Your task to perform on an android device: What's the weather like in Delhi? Image 0: 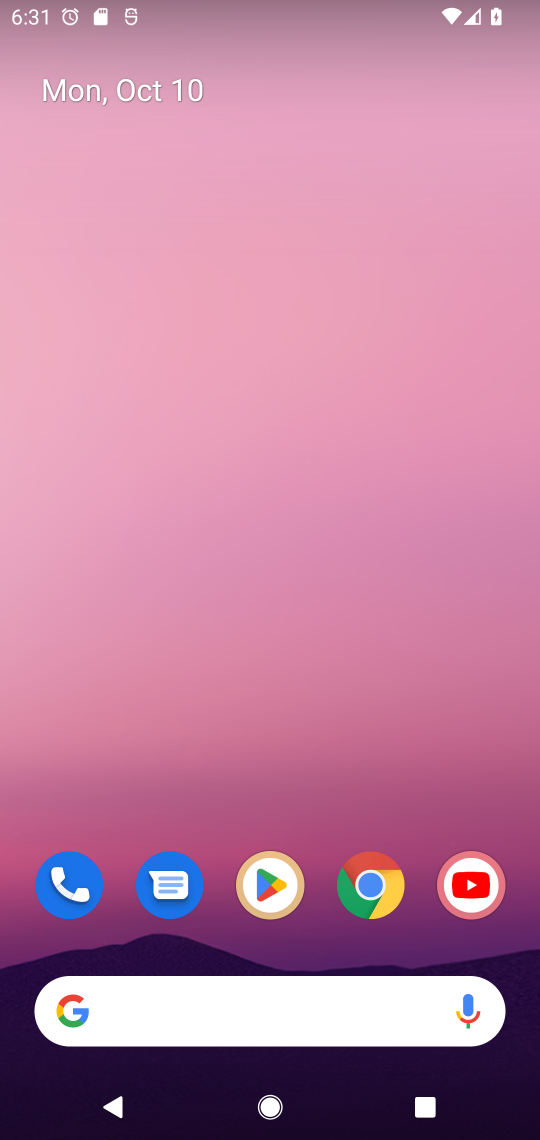
Step 0: click (380, 875)
Your task to perform on an android device: What's the weather like in Delhi? Image 1: 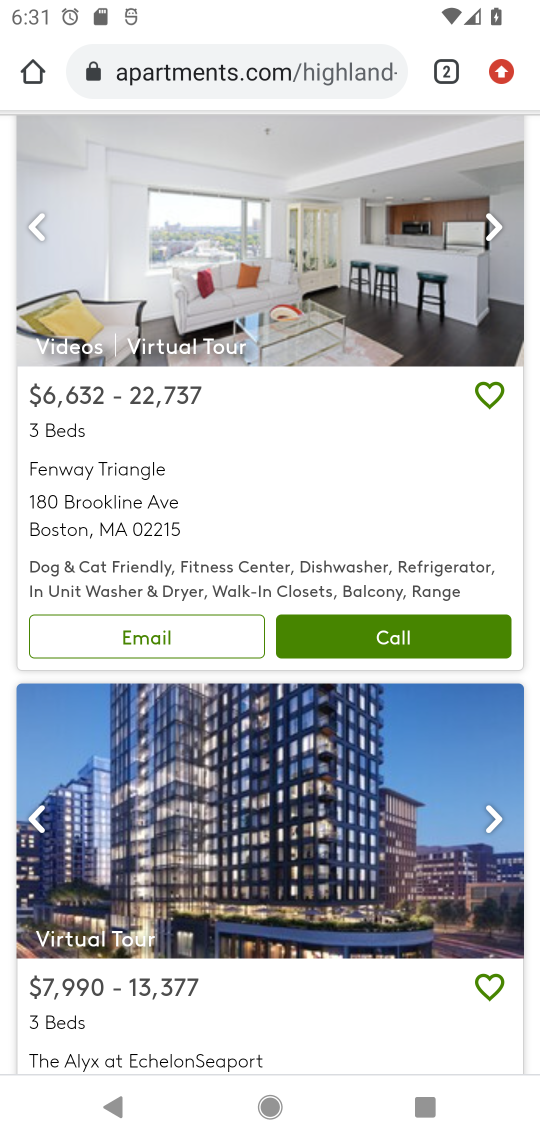
Step 1: click (282, 59)
Your task to perform on an android device: What's the weather like in Delhi? Image 2: 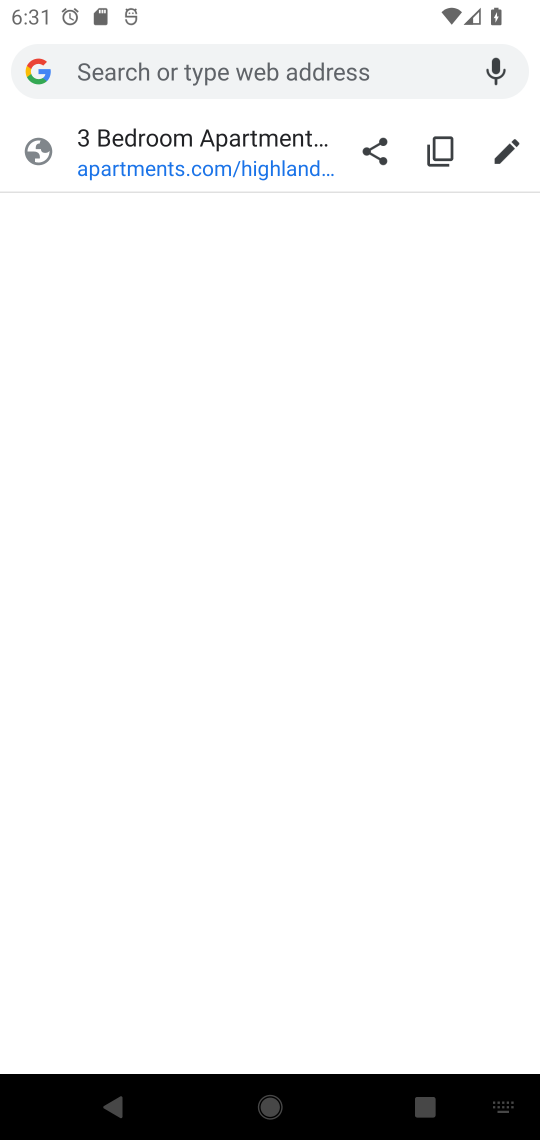
Step 2: type "weather like in Delhi"
Your task to perform on an android device: What's the weather like in Delhi? Image 3: 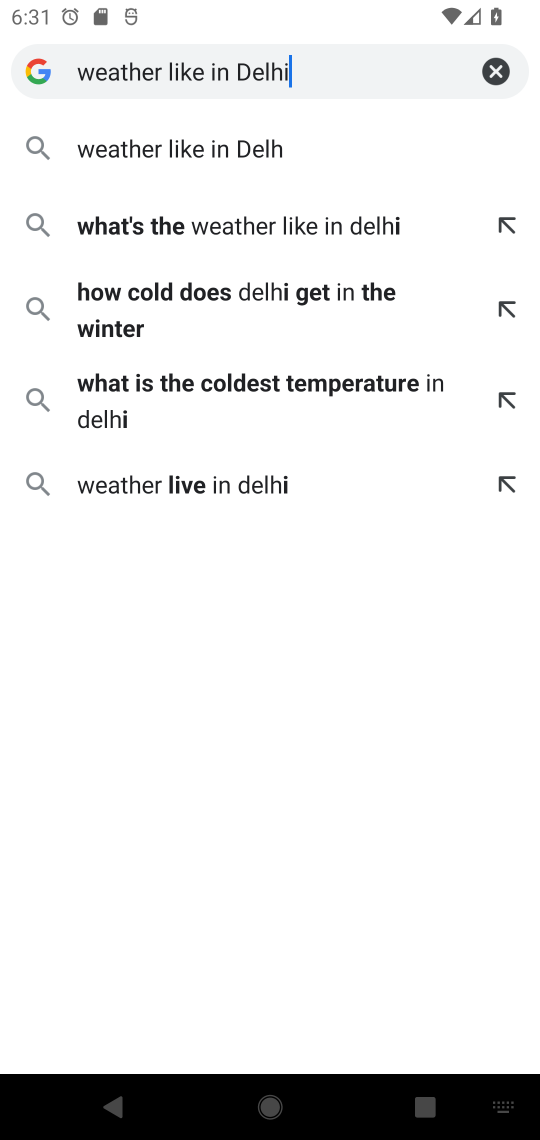
Step 3: type ""
Your task to perform on an android device: What's the weather like in Delhi? Image 4: 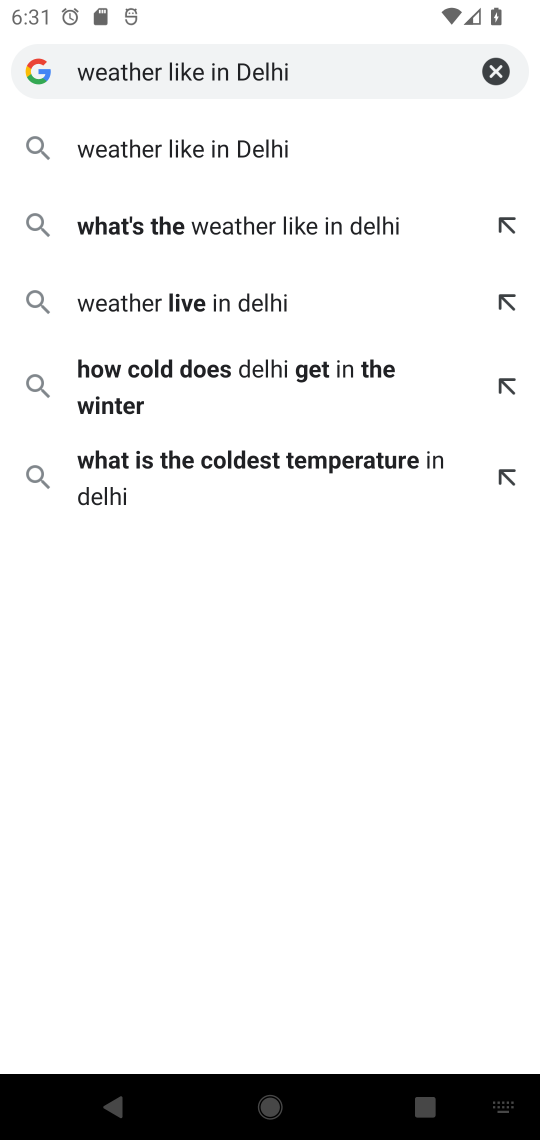
Step 4: click (256, 140)
Your task to perform on an android device: What's the weather like in Delhi? Image 5: 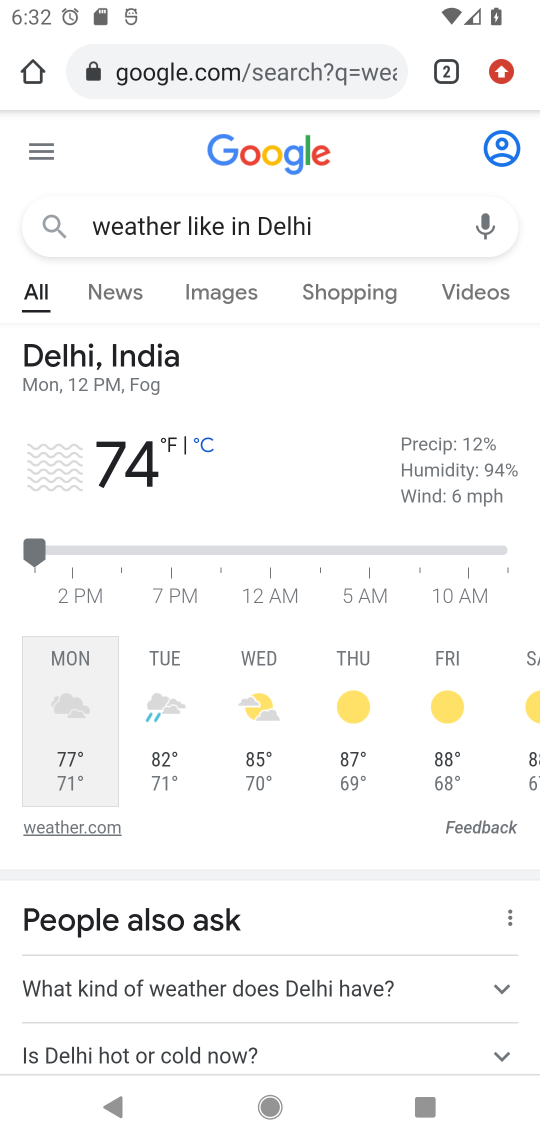
Step 5: drag from (312, 501) to (288, 268)
Your task to perform on an android device: What's the weather like in Delhi? Image 6: 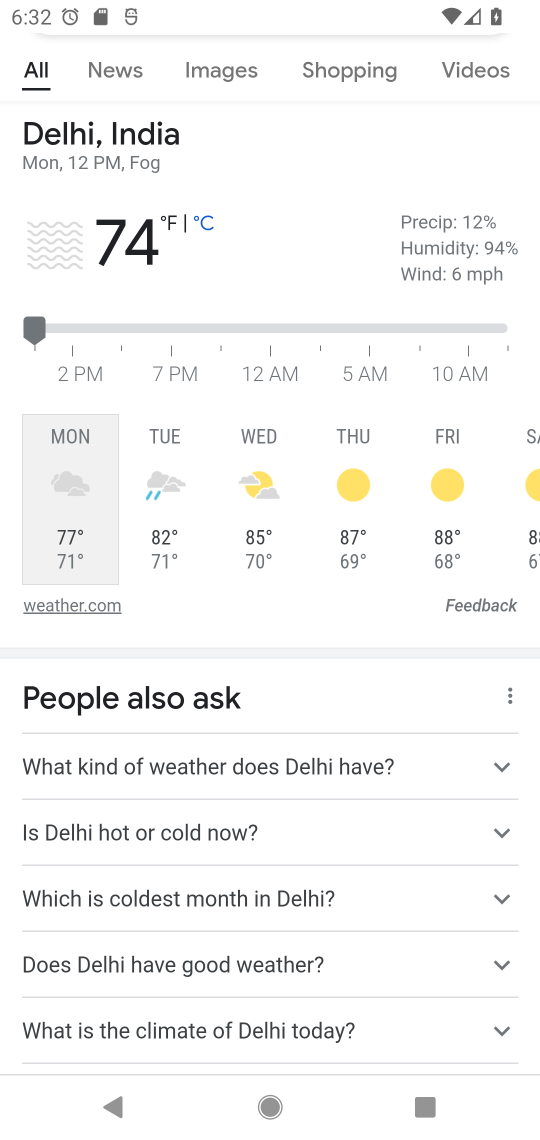
Step 6: drag from (371, 678) to (321, 410)
Your task to perform on an android device: What's the weather like in Delhi? Image 7: 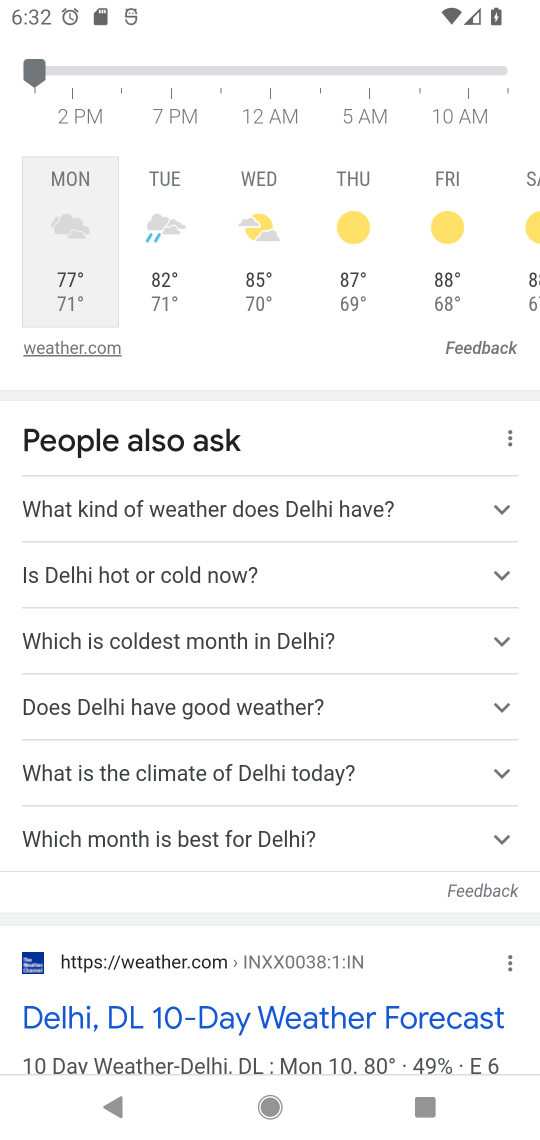
Step 7: click (282, 587)
Your task to perform on an android device: What's the weather like in Delhi? Image 8: 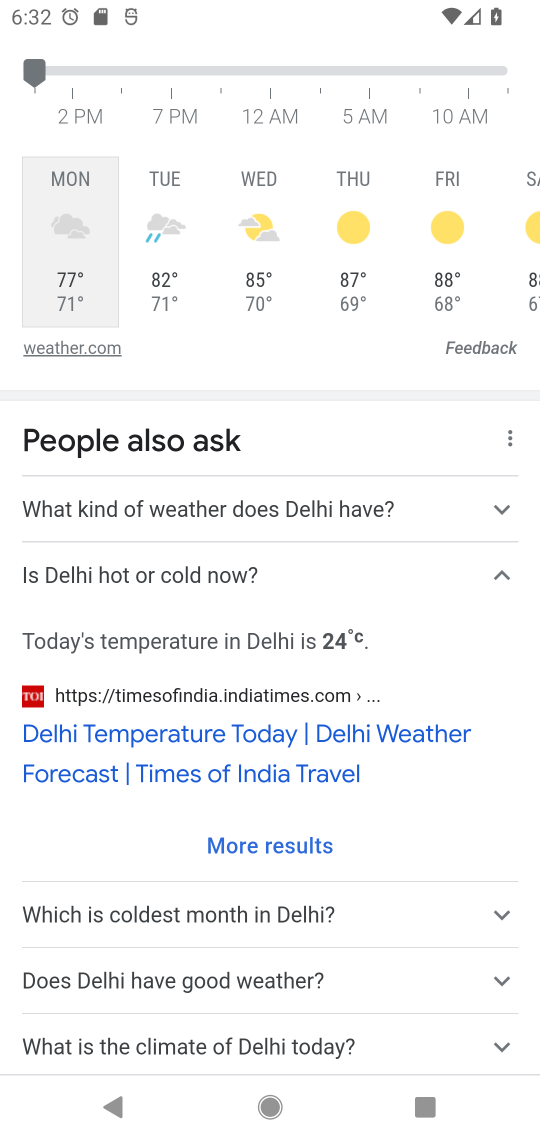
Step 8: task complete